Your task to perform on an android device: Do I have any events tomorrow? Image 0: 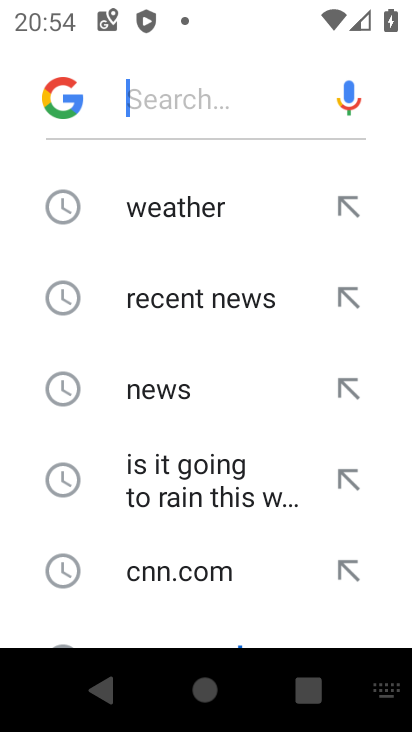
Step 0: press home button
Your task to perform on an android device: Do I have any events tomorrow? Image 1: 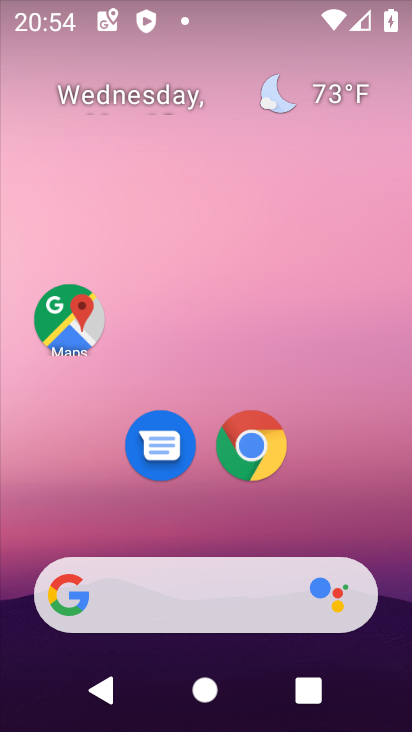
Step 1: drag from (301, 514) to (330, 112)
Your task to perform on an android device: Do I have any events tomorrow? Image 2: 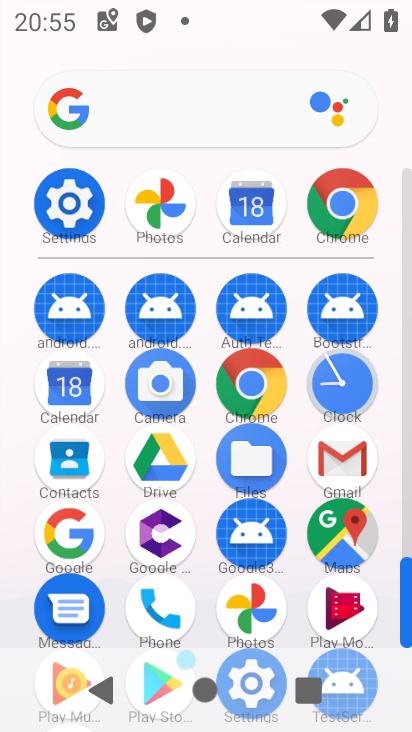
Step 2: drag from (203, 614) to (230, 290)
Your task to perform on an android device: Do I have any events tomorrow? Image 3: 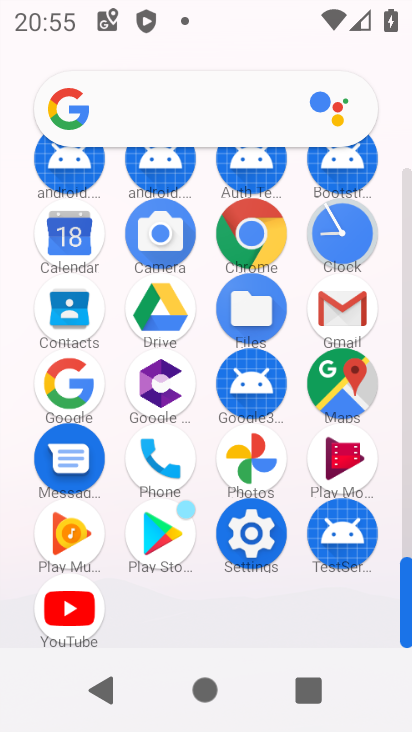
Step 3: click (72, 205)
Your task to perform on an android device: Do I have any events tomorrow? Image 4: 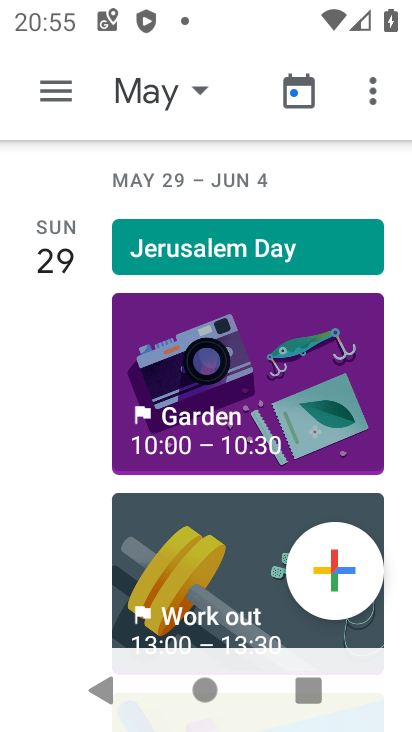
Step 4: click (51, 95)
Your task to perform on an android device: Do I have any events tomorrow? Image 5: 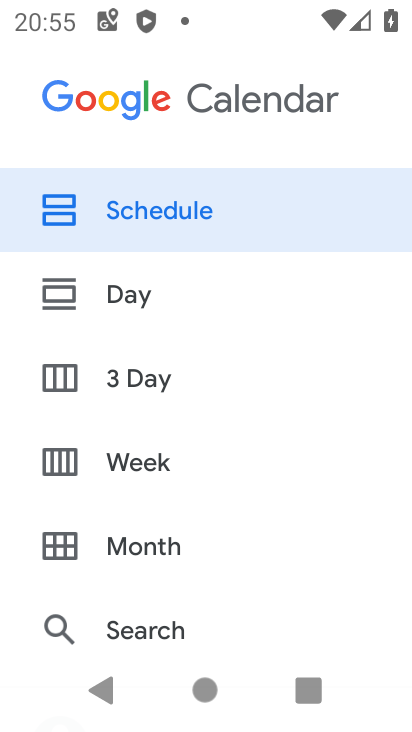
Step 5: click (133, 527)
Your task to perform on an android device: Do I have any events tomorrow? Image 6: 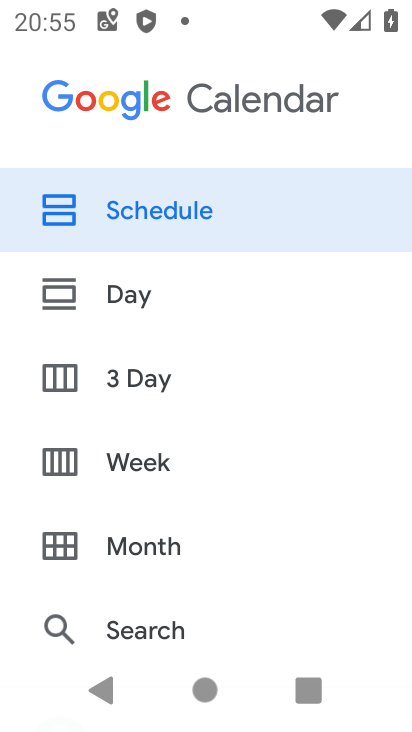
Step 6: click (123, 448)
Your task to perform on an android device: Do I have any events tomorrow? Image 7: 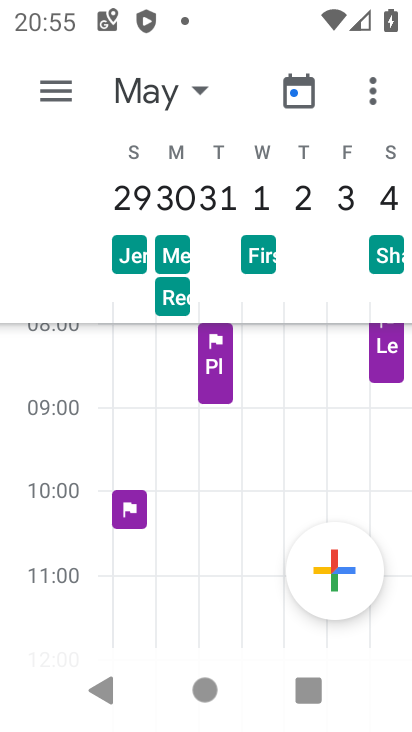
Step 7: click (66, 78)
Your task to perform on an android device: Do I have any events tomorrow? Image 8: 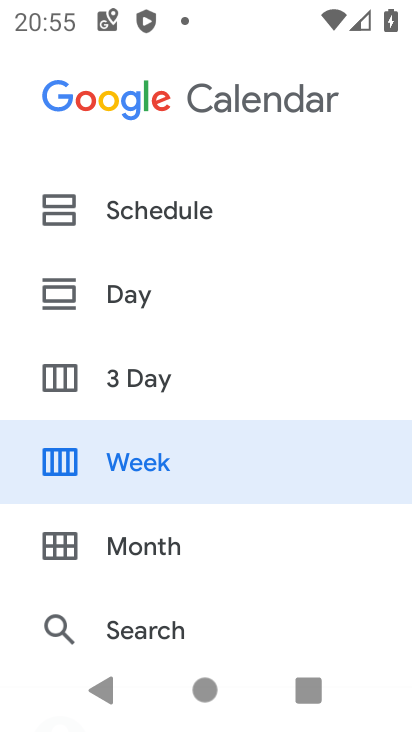
Step 8: click (159, 531)
Your task to perform on an android device: Do I have any events tomorrow? Image 9: 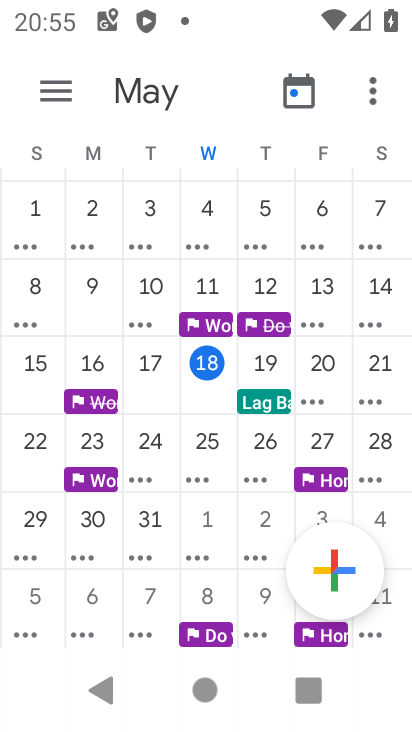
Step 9: click (306, 359)
Your task to perform on an android device: Do I have any events tomorrow? Image 10: 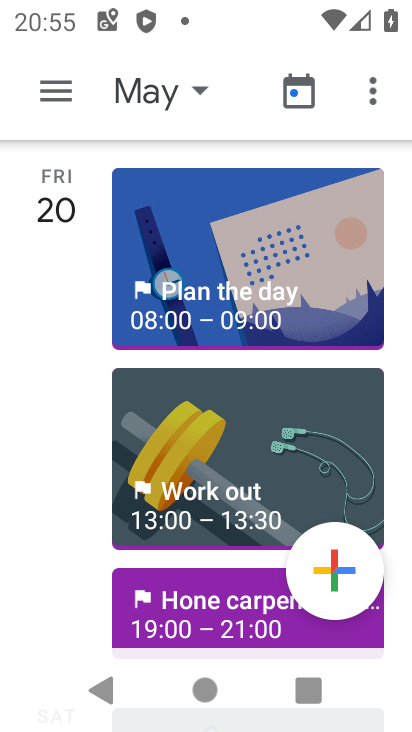
Step 10: task complete